Your task to perform on an android device: open app "ZOOM Cloud Meetings" (install if not already installed) and enter user name: "bauxite@icloud.com" and password: "dim" Image 0: 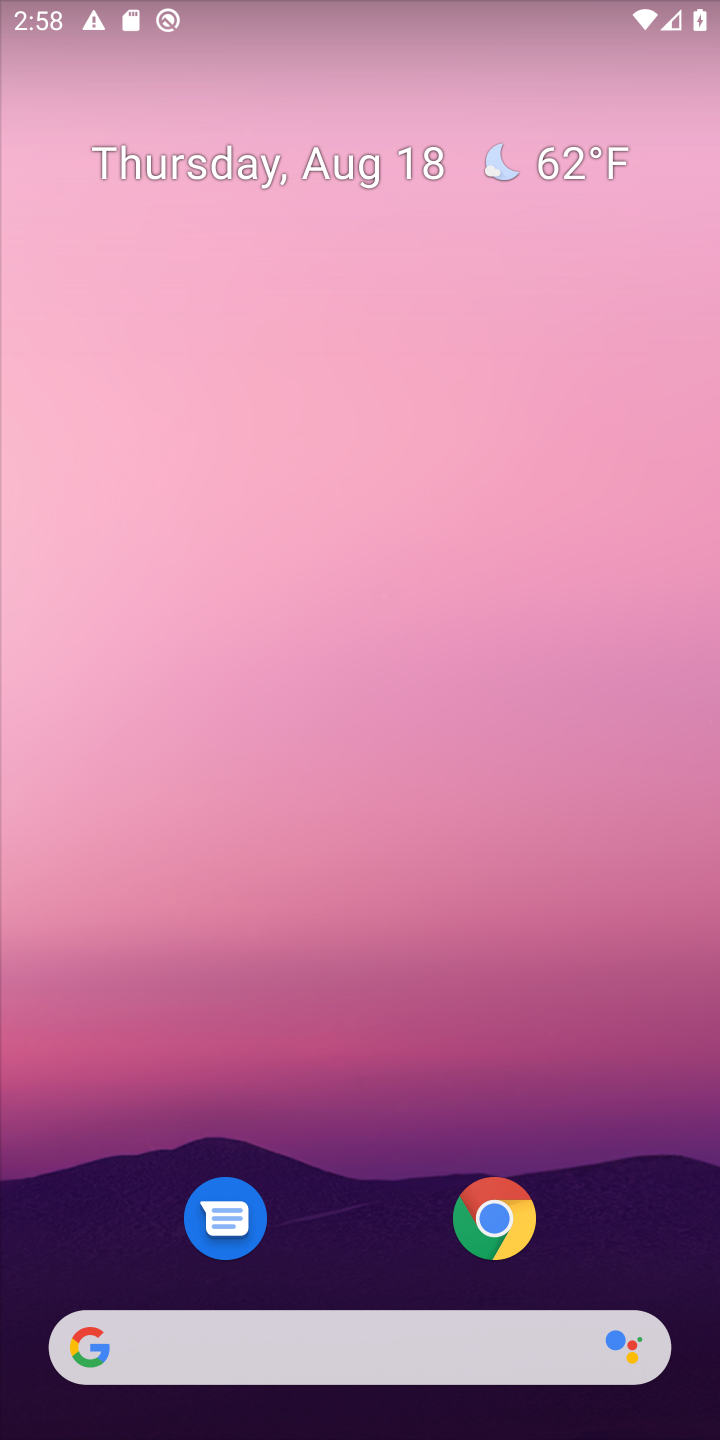
Step 0: drag from (360, 1130) to (380, 380)
Your task to perform on an android device: open app "ZOOM Cloud Meetings" (install if not already installed) and enter user name: "bauxite@icloud.com" and password: "dim" Image 1: 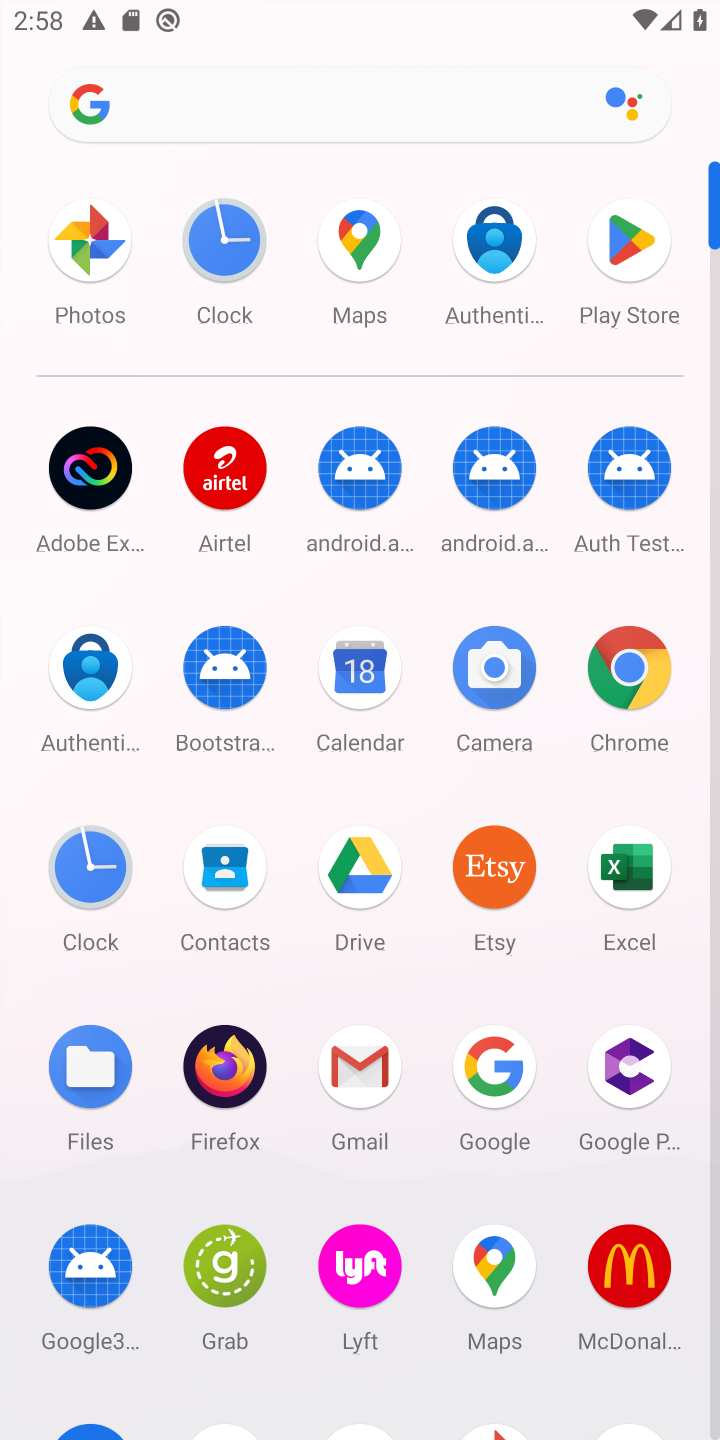
Step 1: click (611, 263)
Your task to perform on an android device: open app "ZOOM Cloud Meetings" (install if not already installed) and enter user name: "bauxite@icloud.com" and password: "dim" Image 2: 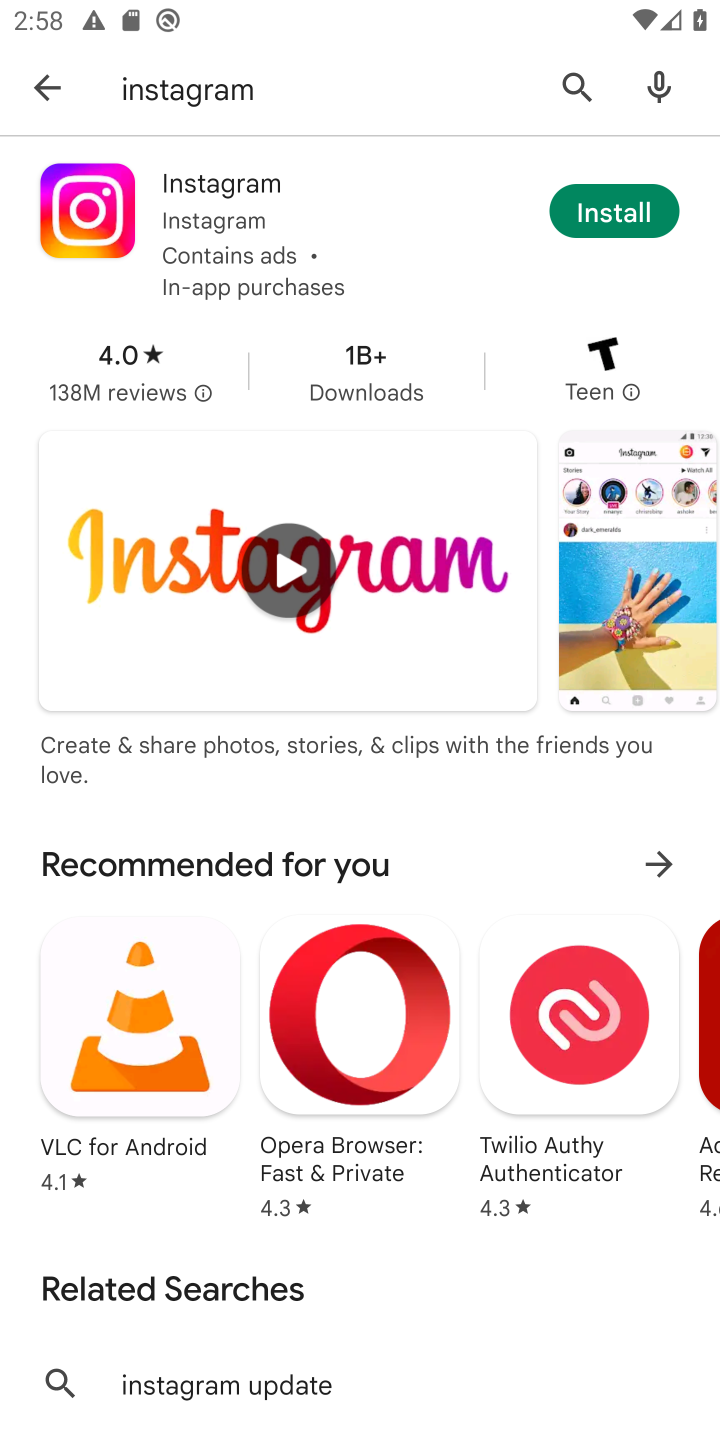
Step 2: click (561, 90)
Your task to perform on an android device: open app "ZOOM Cloud Meetings" (install if not already installed) and enter user name: "bauxite@icloud.com" and password: "dim" Image 3: 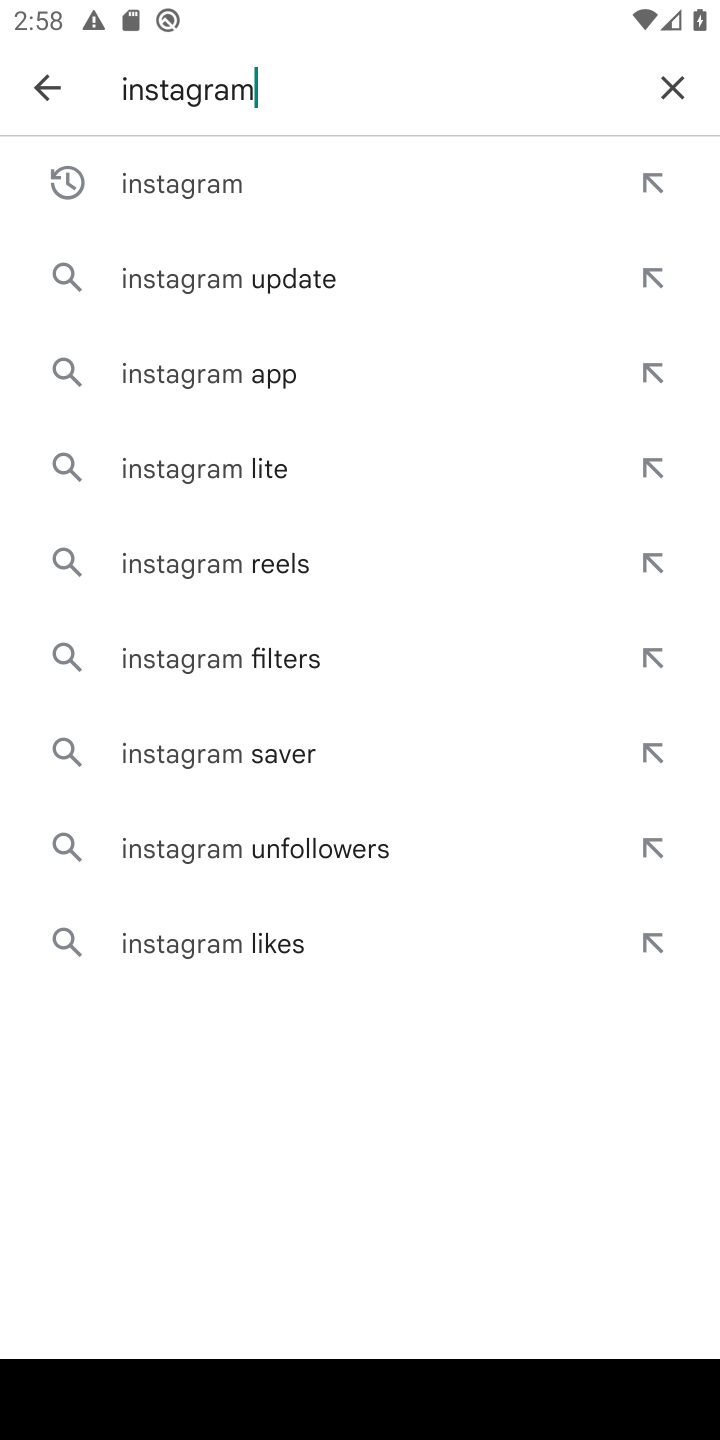
Step 3: click (665, 87)
Your task to perform on an android device: open app "ZOOM Cloud Meetings" (install if not already installed) and enter user name: "bauxite@icloud.com" and password: "dim" Image 4: 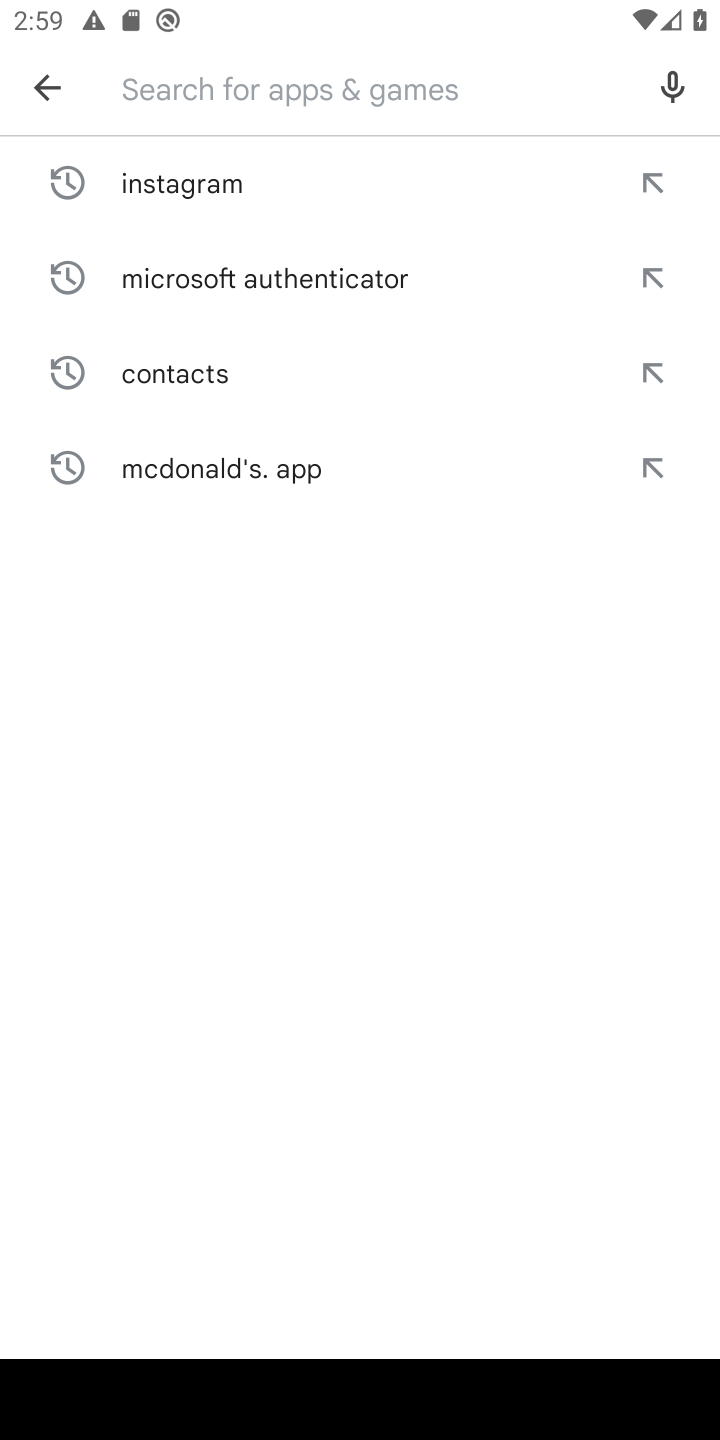
Step 4: type "ZOOM Cloud Meetings"
Your task to perform on an android device: open app "ZOOM Cloud Meetings" (install if not already installed) and enter user name: "bauxite@icloud.com" and password: "dim" Image 5: 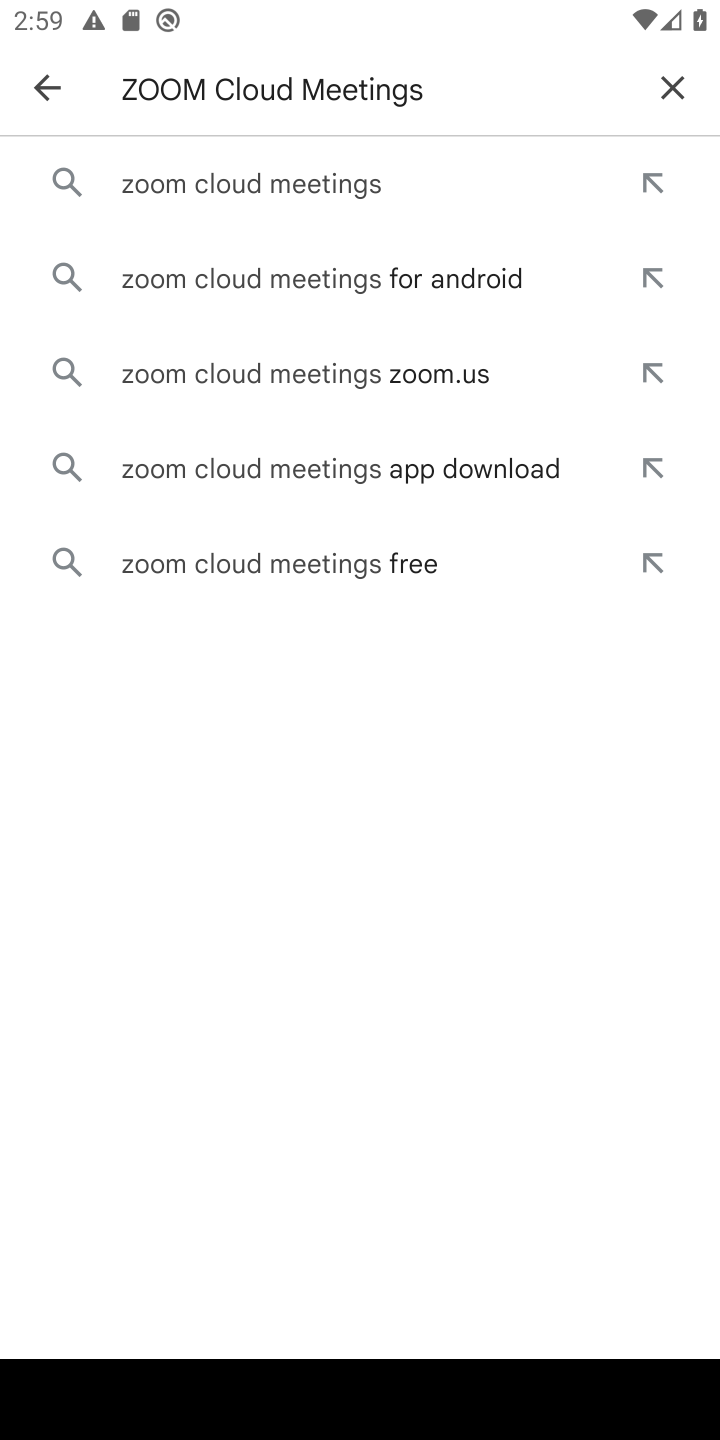
Step 5: click (283, 183)
Your task to perform on an android device: open app "ZOOM Cloud Meetings" (install if not already installed) and enter user name: "bauxite@icloud.com" and password: "dim" Image 6: 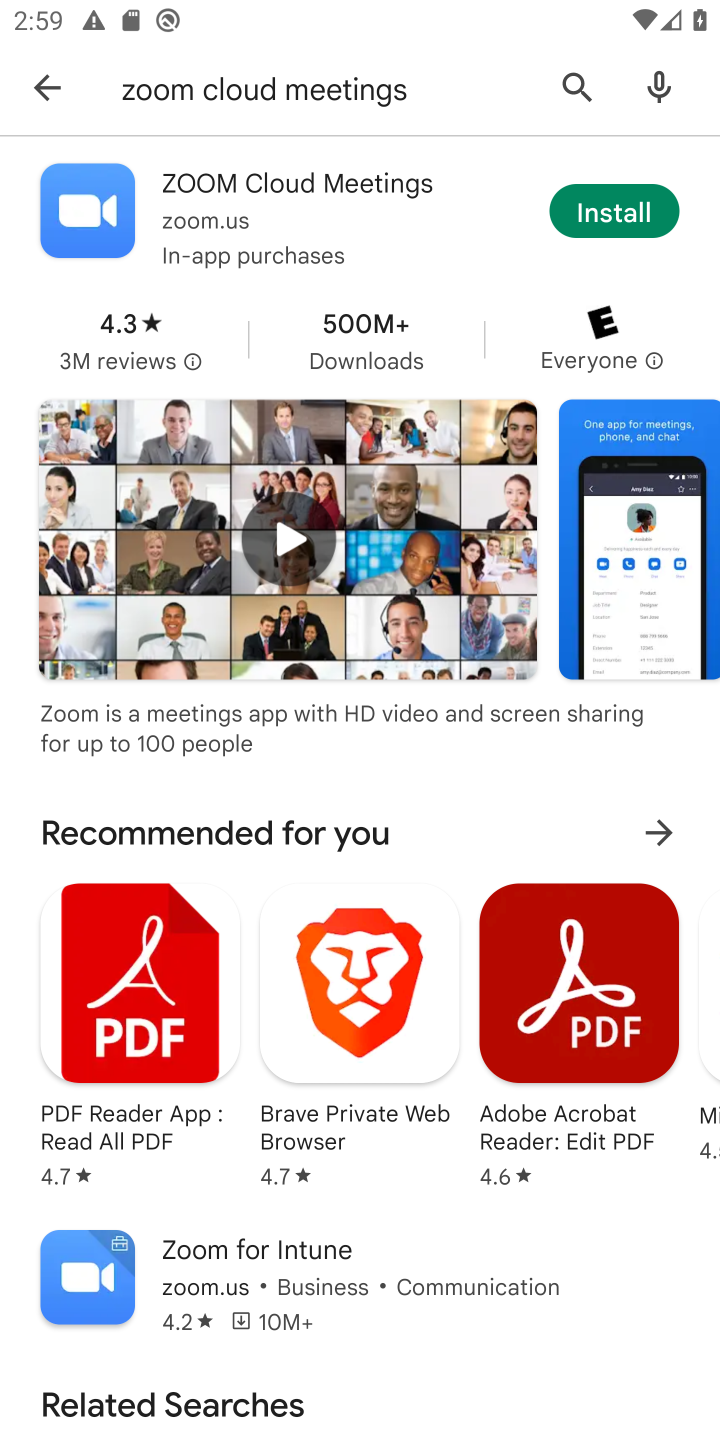
Step 6: click (598, 224)
Your task to perform on an android device: open app "ZOOM Cloud Meetings" (install if not already installed) and enter user name: "bauxite@icloud.com" and password: "dim" Image 7: 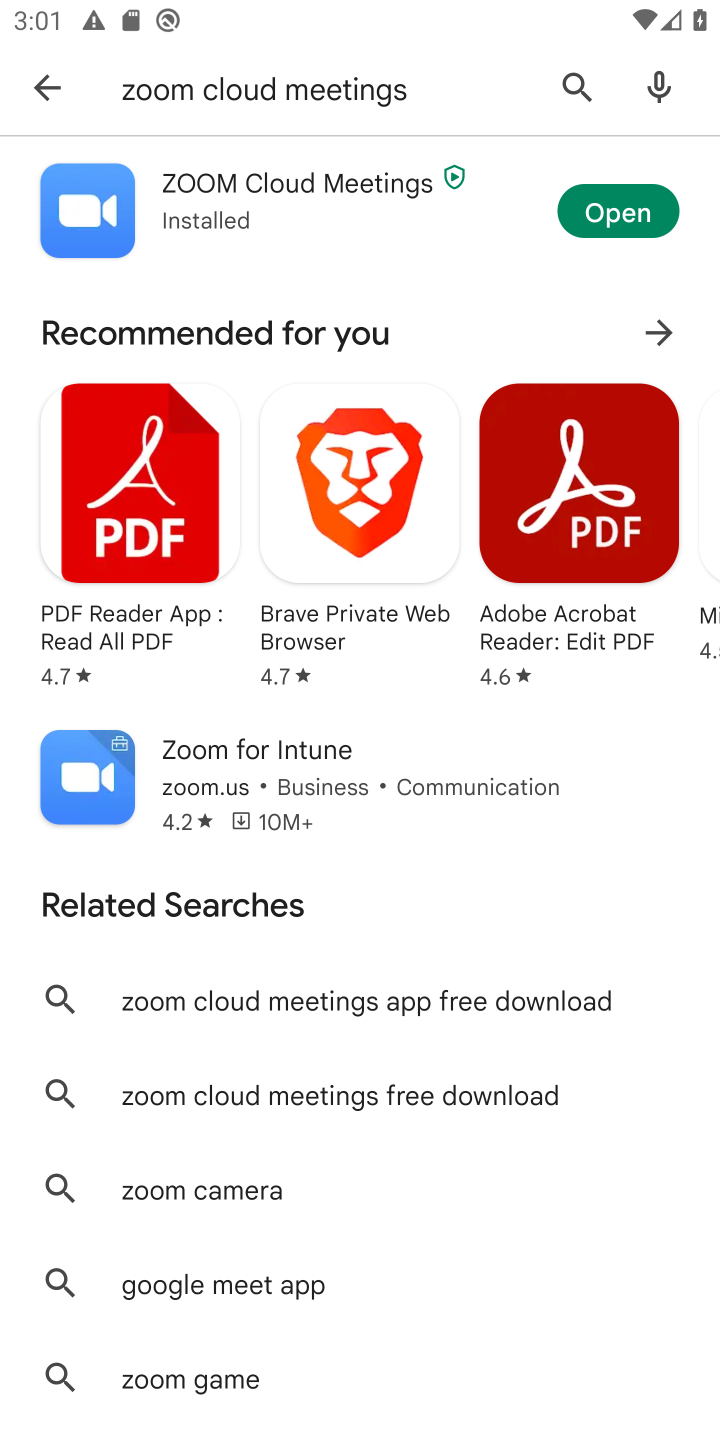
Step 7: click (641, 219)
Your task to perform on an android device: open app "ZOOM Cloud Meetings" (install if not already installed) and enter user name: "bauxite@icloud.com" and password: "dim" Image 8: 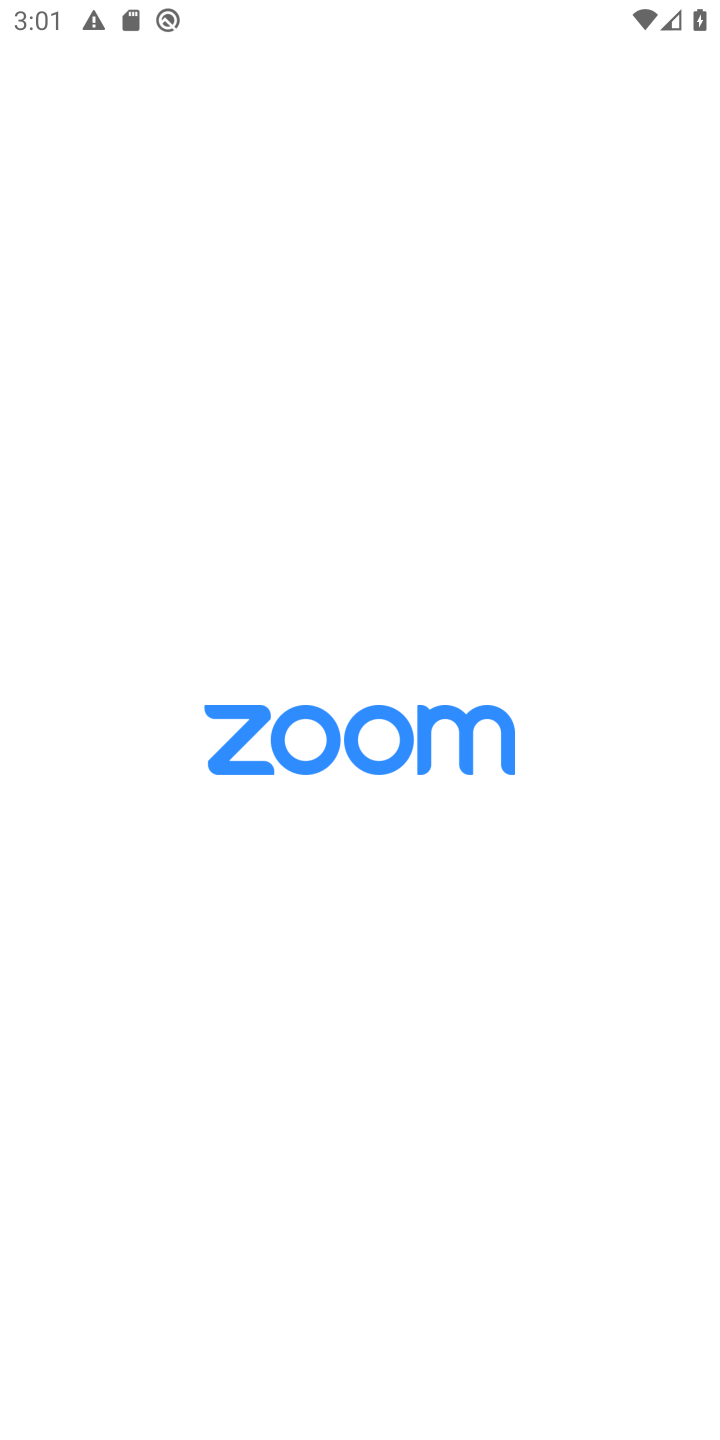
Step 8: task complete